Your task to perform on an android device: Open battery settings Image 0: 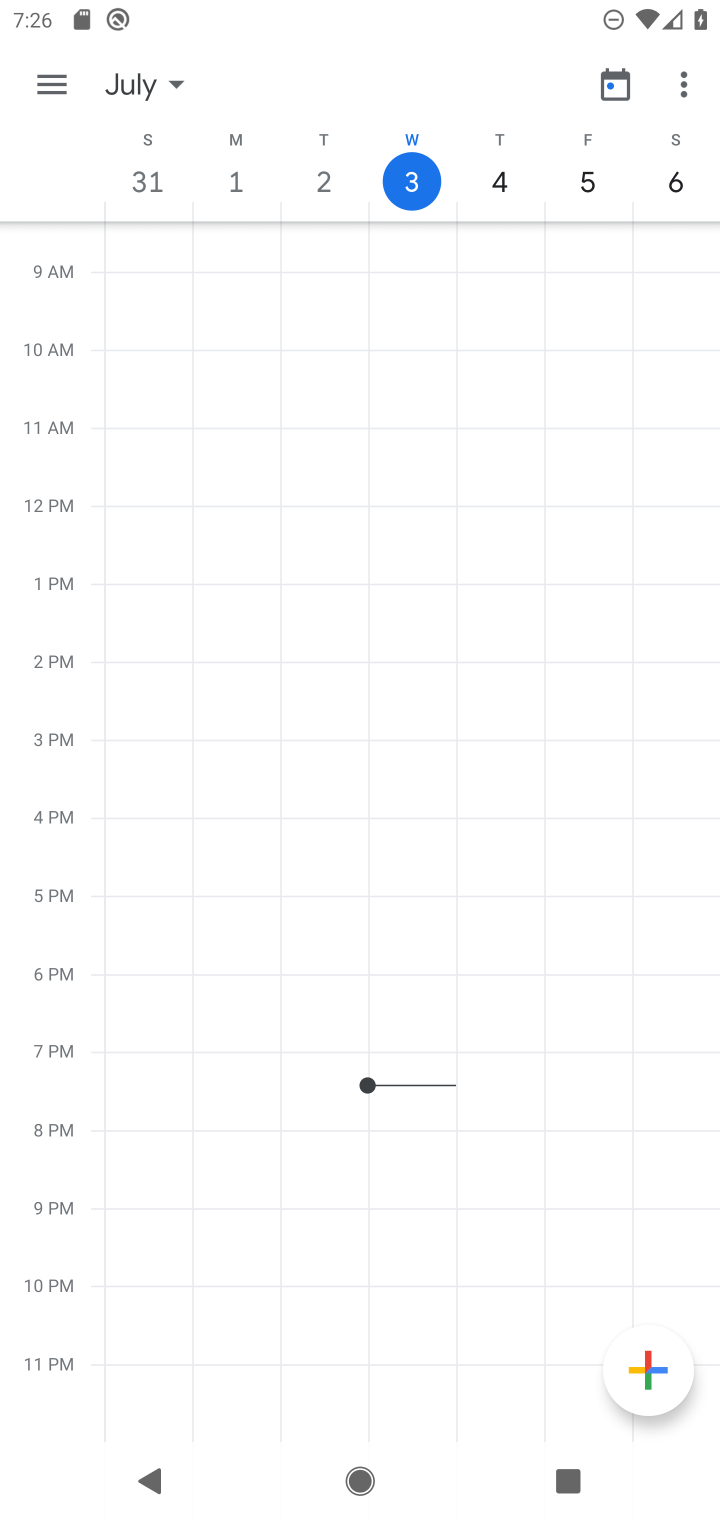
Step 0: press home button
Your task to perform on an android device: Open battery settings Image 1: 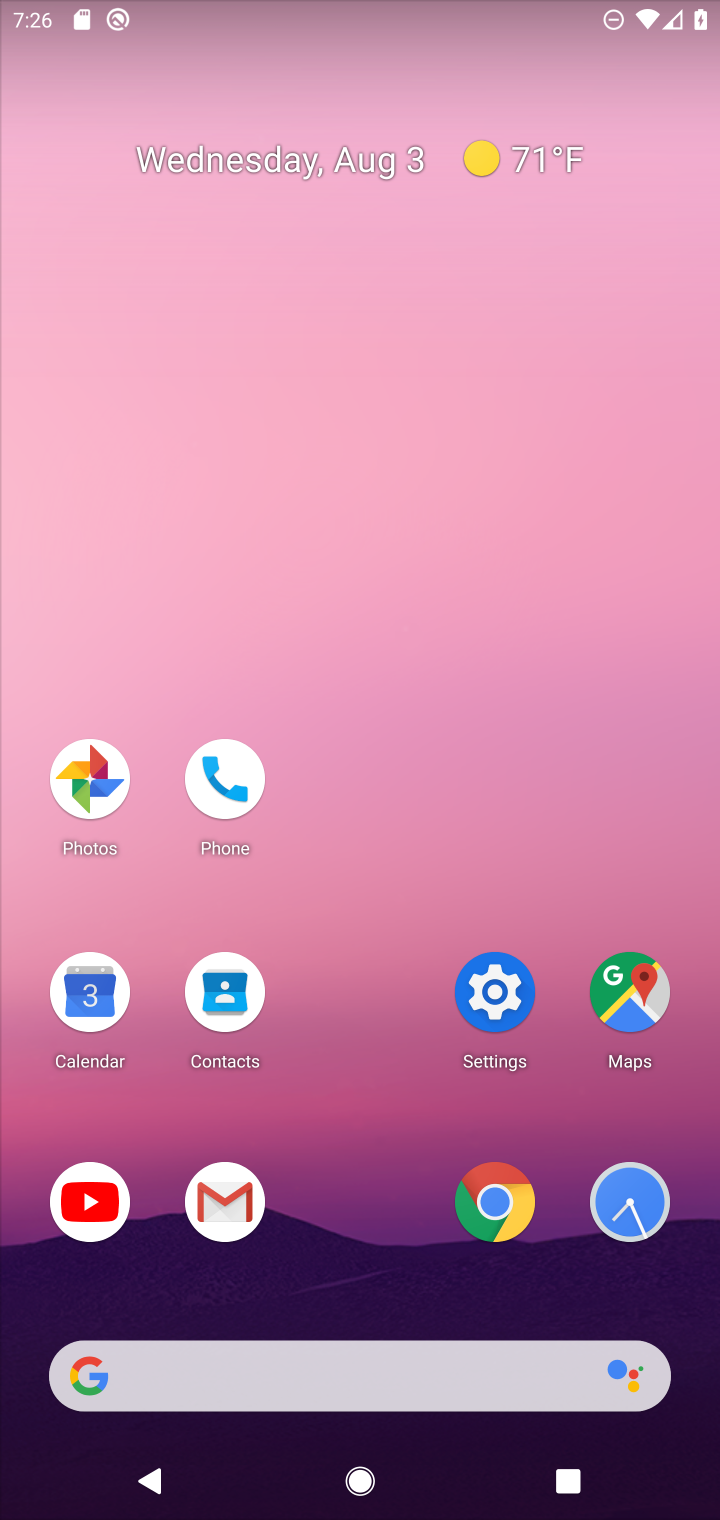
Step 1: click (482, 984)
Your task to perform on an android device: Open battery settings Image 2: 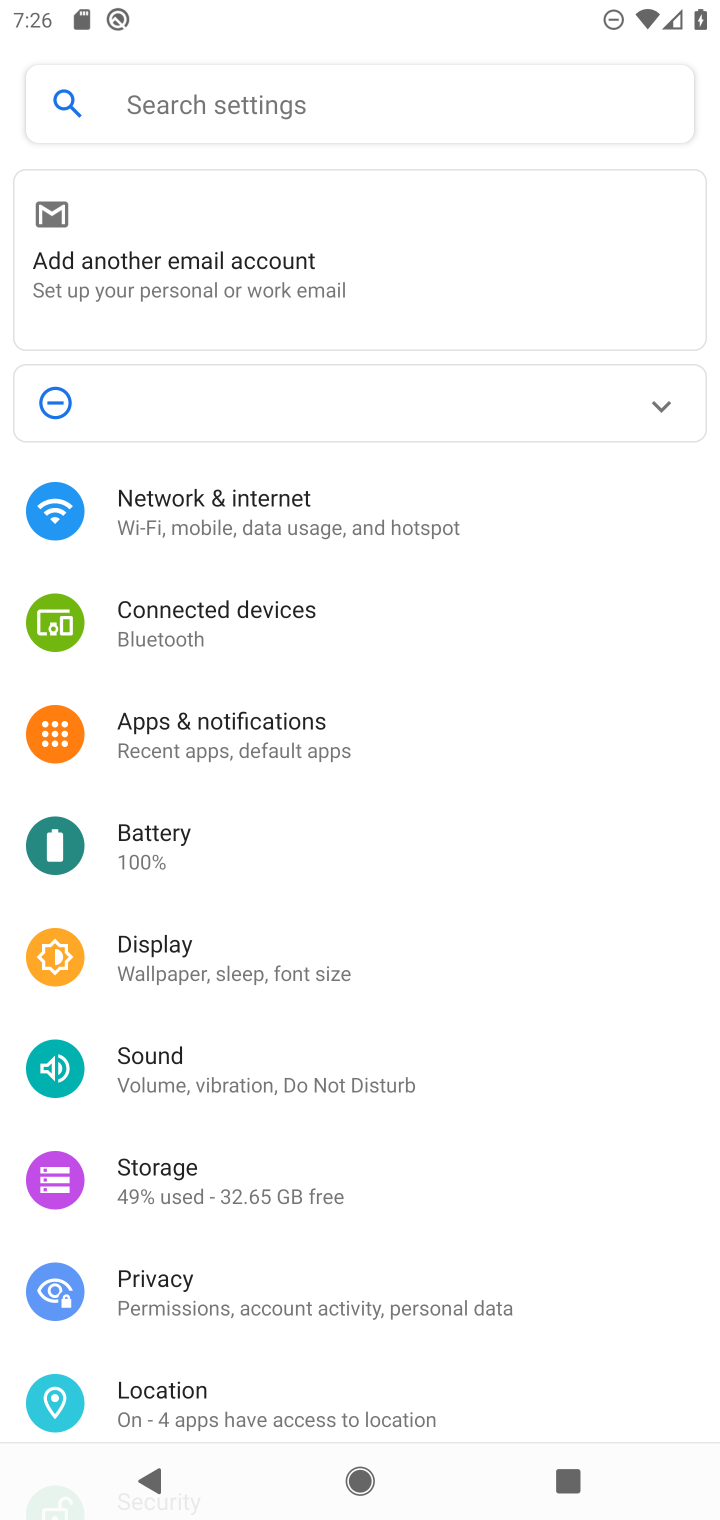
Step 2: click (157, 812)
Your task to perform on an android device: Open battery settings Image 3: 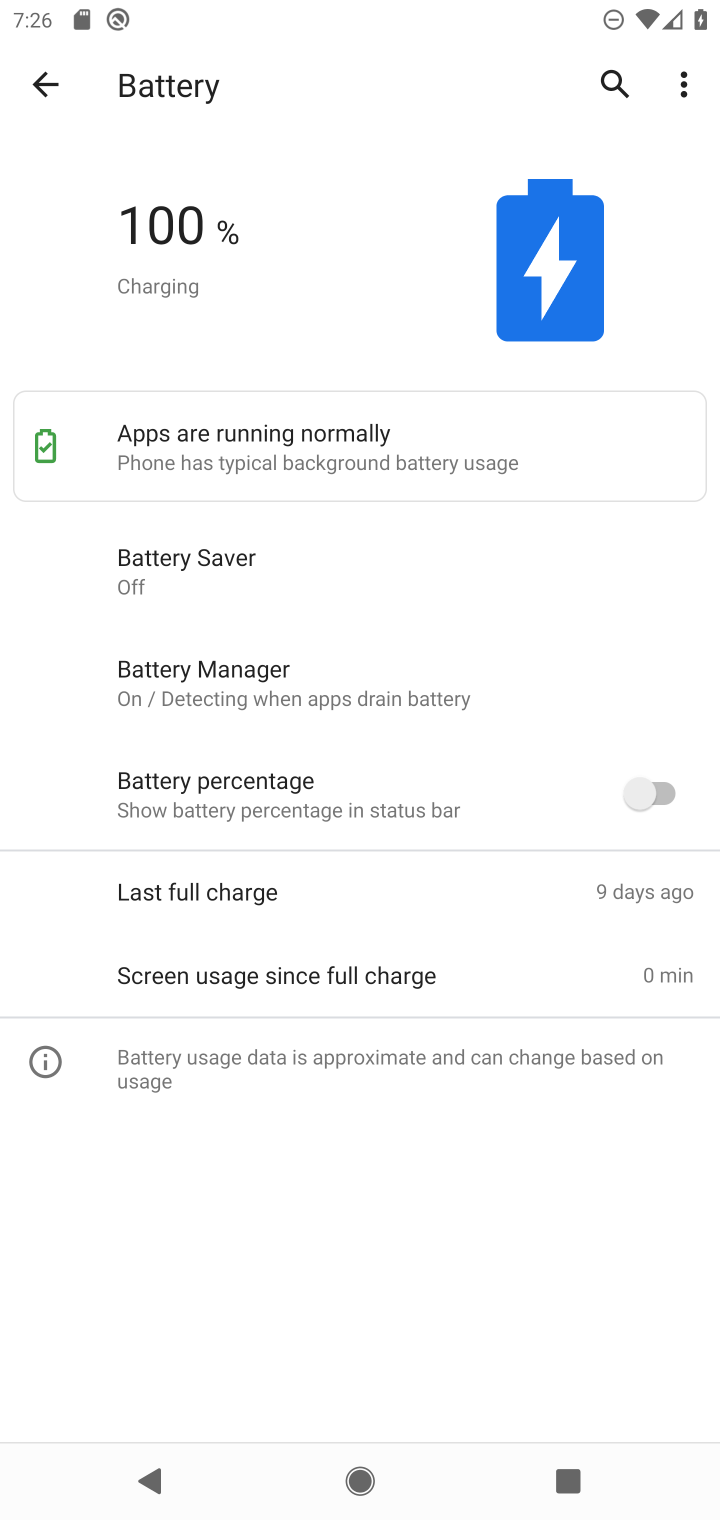
Step 3: task complete